Your task to perform on an android device: turn notification dots off Image 0: 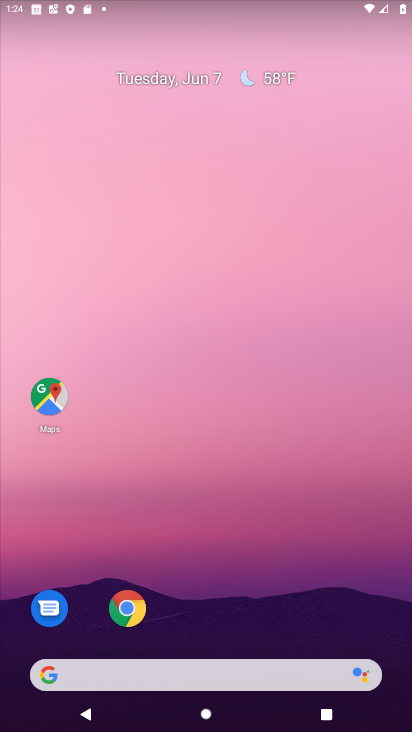
Step 0: drag from (258, 581) to (221, 165)
Your task to perform on an android device: turn notification dots off Image 1: 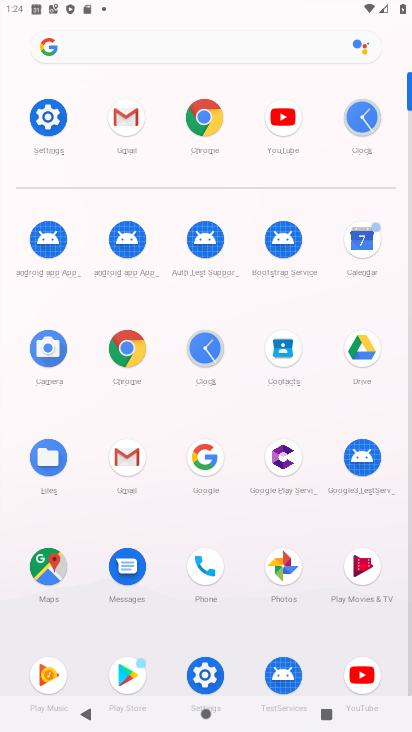
Step 1: click (47, 119)
Your task to perform on an android device: turn notification dots off Image 2: 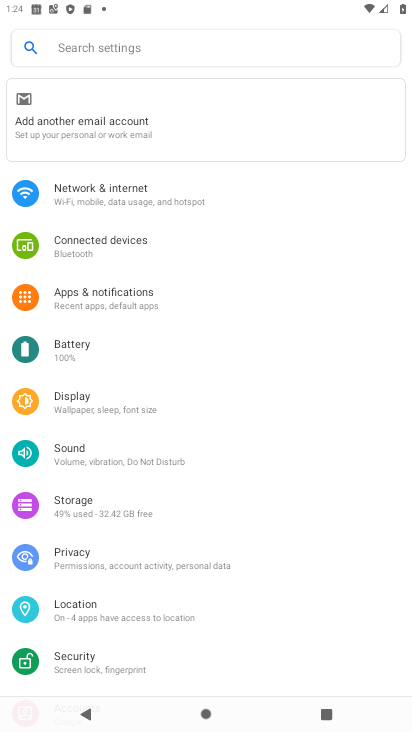
Step 2: click (98, 301)
Your task to perform on an android device: turn notification dots off Image 3: 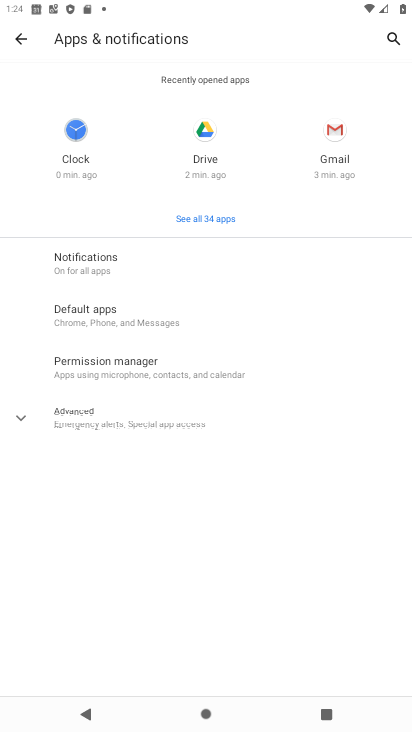
Step 3: click (115, 271)
Your task to perform on an android device: turn notification dots off Image 4: 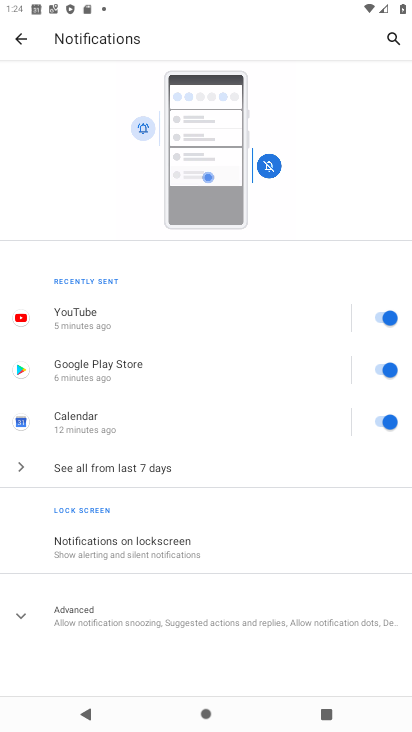
Step 4: click (123, 610)
Your task to perform on an android device: turn notification dots off Image 5: 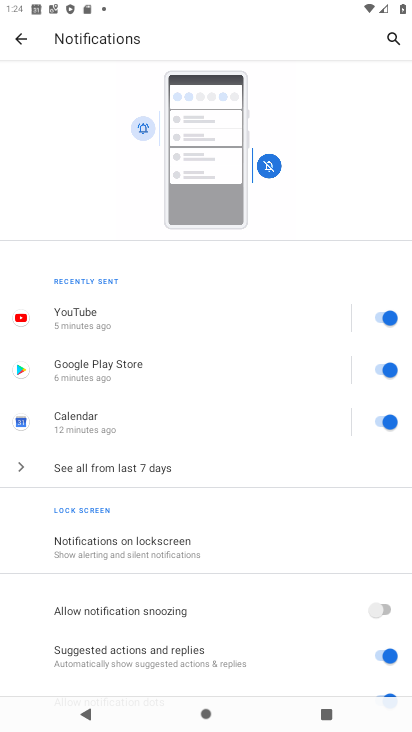
Step 5: drag from (201, 629) to (225, 167)
Your task to perform on an android device: turn notification dots off Image 6: 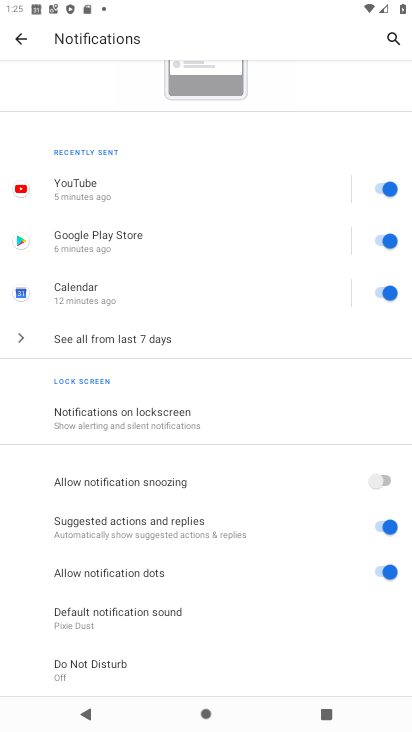
Step 6: click (379, 577)
Your task to perform on an android device: turn notification dots off Image 7: 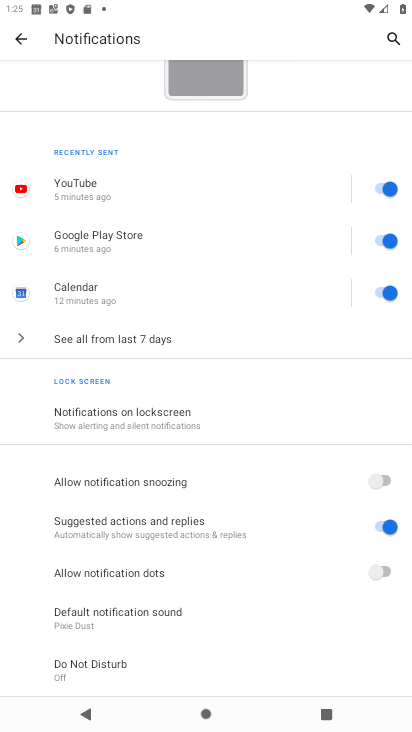
Step 7: task complete